Your task to perform on an android device: open wifi settings Image 0: 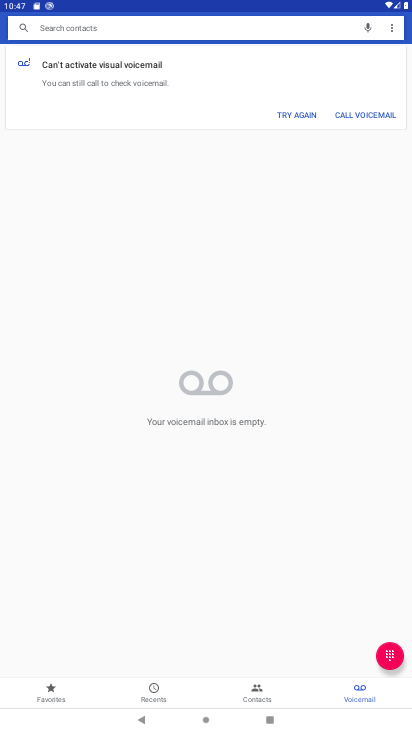
Step 0: press home button
Your task to perform on an android device: open wifi settings Image 1: 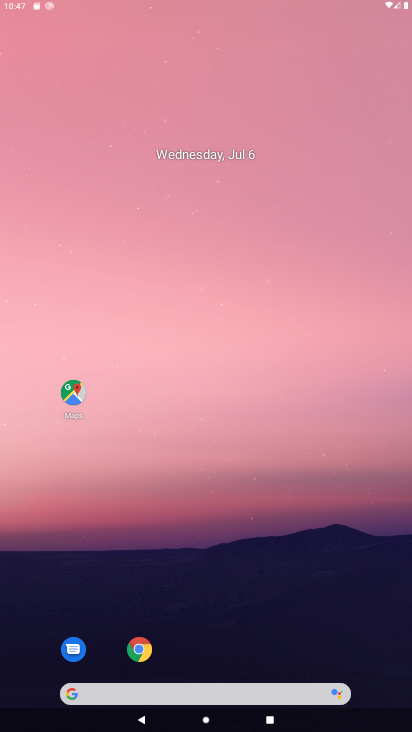
Step 1: drag from (325, 680) to (310, 7)
Your task to perform on an android device: open wifi settings Image 2: 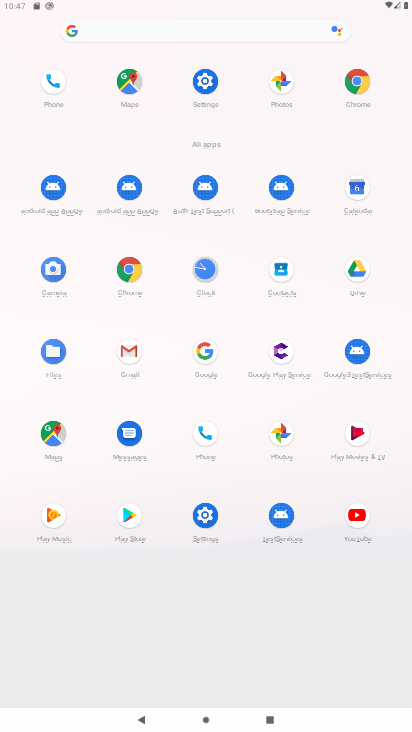
Step 2: click (214, 80)
Your task to perform on an android device: open wifi settings Image 3: 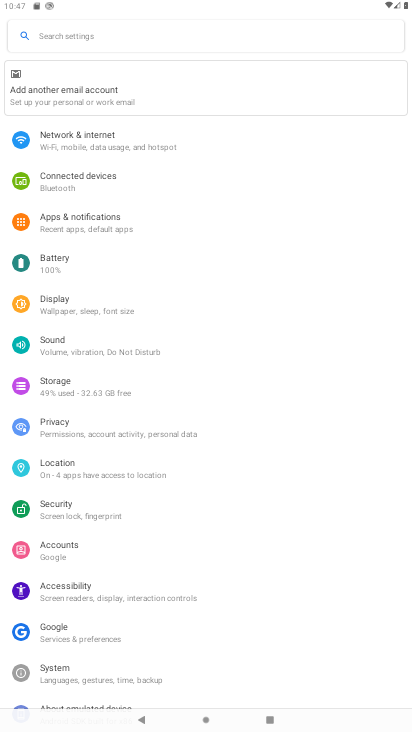
Step 3: click (96, 147)
Your task to perform on an android device: open wifi settings Image 4: 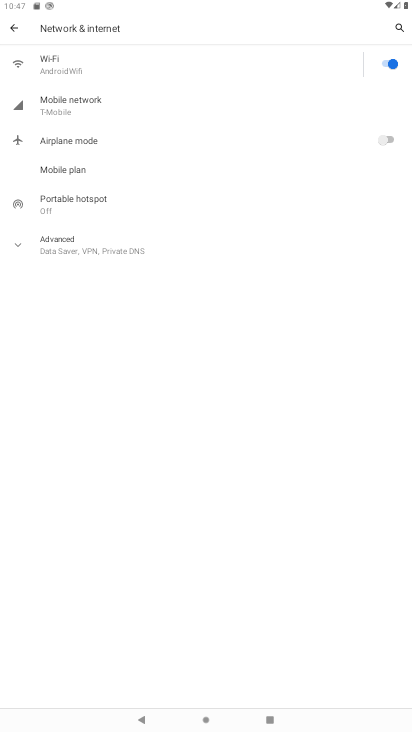
Step 4: click (215, 67)
Your task to perform on an android device: open wifi settings Image 5: 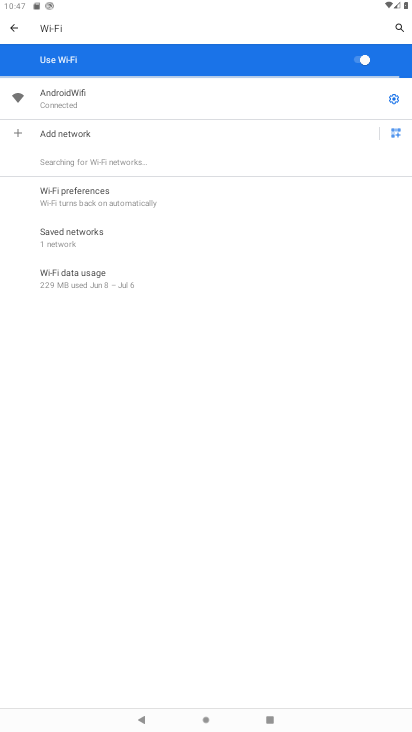
Step 5: task complete